Your task to perform on an android device: Open sound settings Image 0: 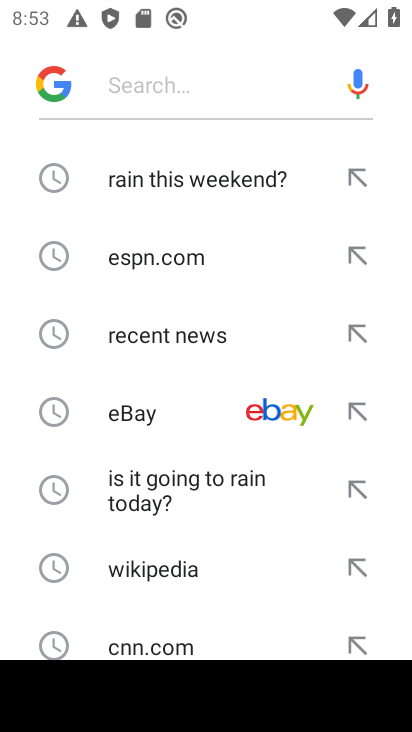
Step 0: press home button
Your task to perform on an android device: Open sound settings Image 1: 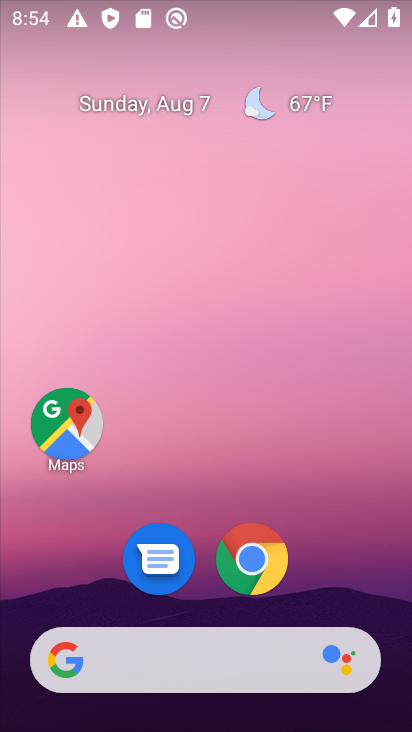
Step 1: drag from (237, 654) to (239, 97)
Your task to perform on an android device: Open sound settings Image 2: 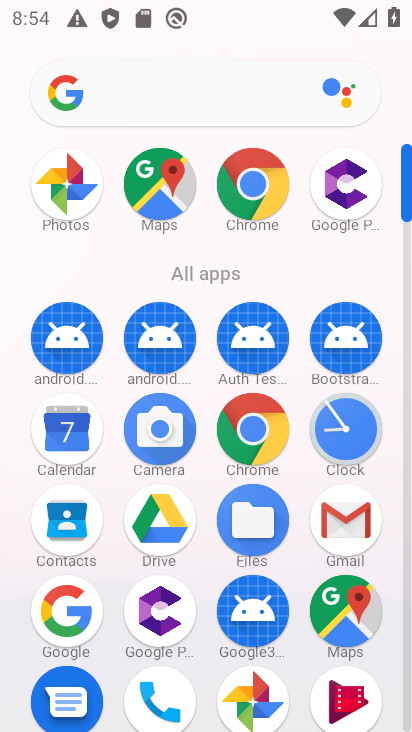
Step 2: drag from (288, 558) to (269, 288)
Your task to perform on an android device: Open sound settings Image 3: 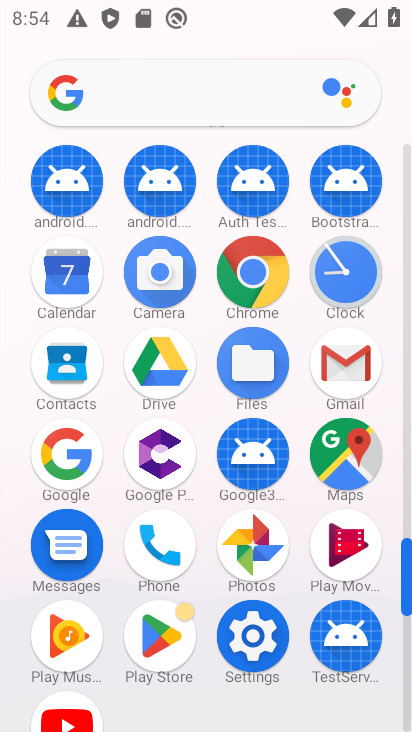
Step 3: click (250, 635)
Your task to perform on an android device: Open sound settings Image 4: 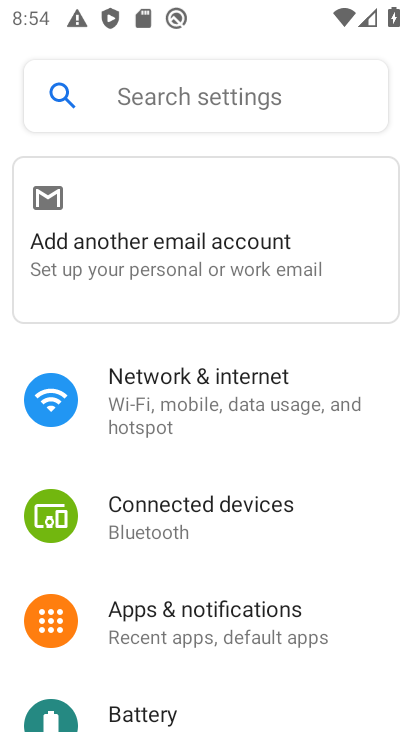
Step 4: drag from (274, 668) to (286, 200)
Your task to perform on an android device: Open sound settings Image 5: 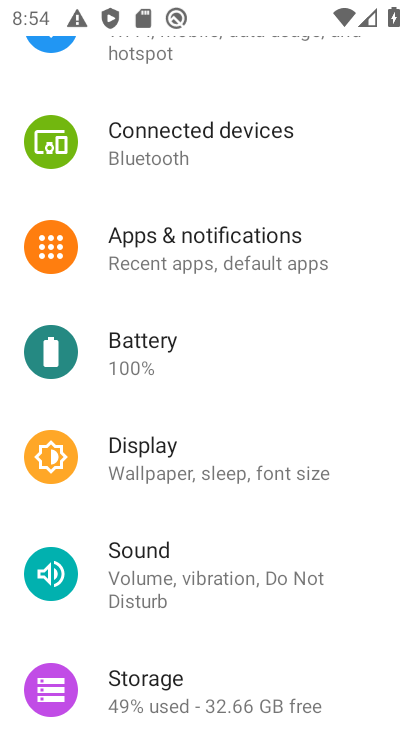
Step 5: click (207, 582)
Your task to perform on an android device: Open sound settings Image 6: 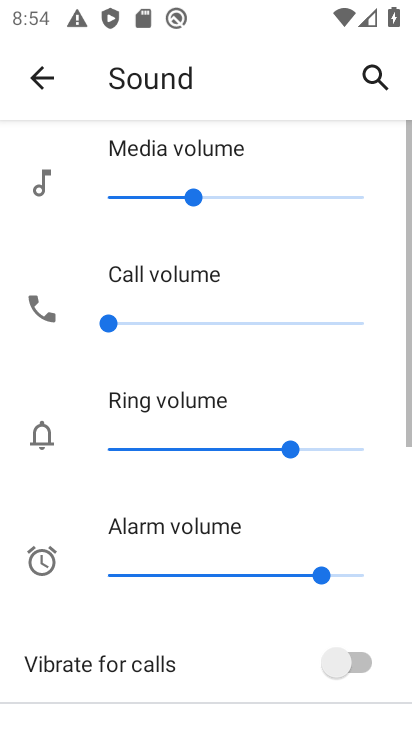
Step 6: task complete